Your task to perform on an android device: Go to Maps Image 0: 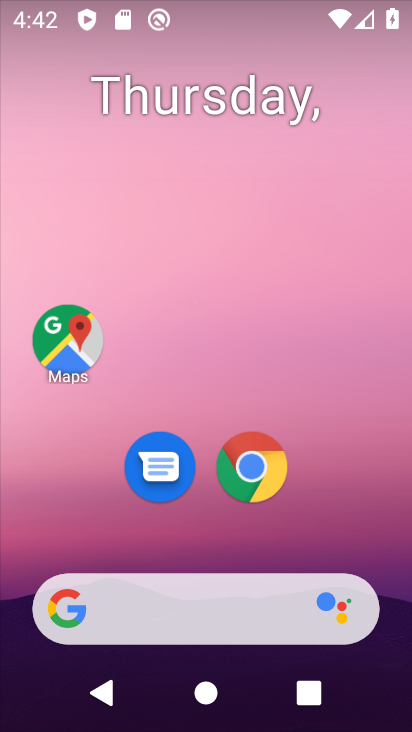
Step 0: click (65, 328)
Your task to perform on an android device: Go to Maps Image 1: 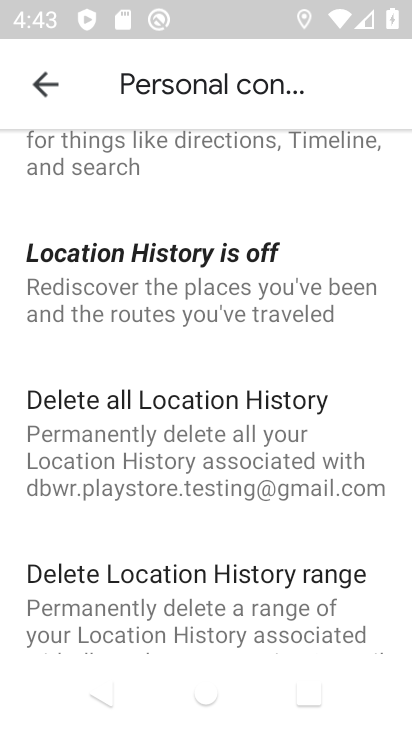
Step 1: click (43, 81)
Your task to perform on an android device: Go to Maps Image 2: 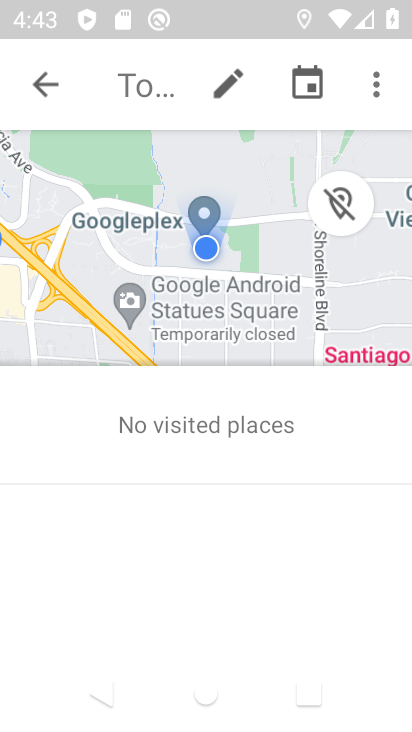
Step 2: click (45, 76)
Your task to perform on an android device: Go to Maps Image 3: 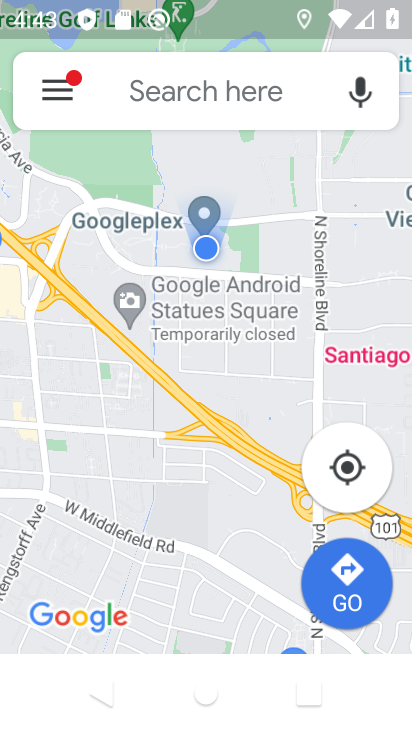
Step 3: task complete